Your task to perform on an android device: add a contact in the contacts app Image 0: 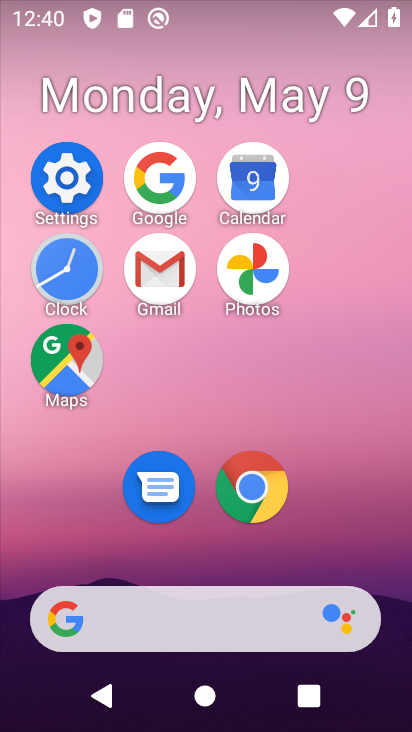
Step 0: drag from (322, 378) to (344, 113)
Your task to perform on an android device: add a contact in the contacts app Image 1: 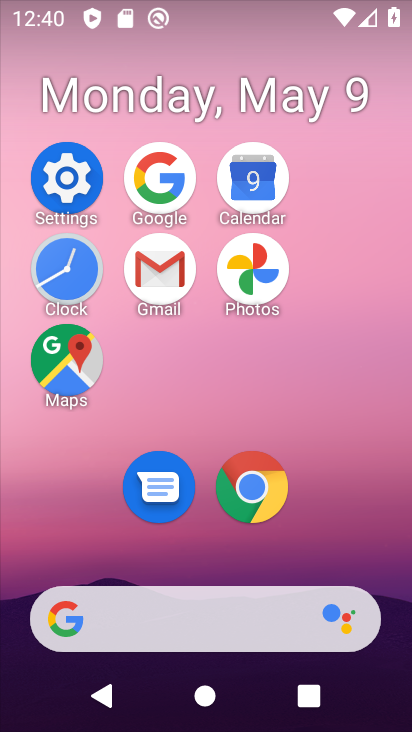
Step 1: drag from (248, 580) to (269, 178)
Your task to perform on an android device: add a contact in the contacts app Image 2: 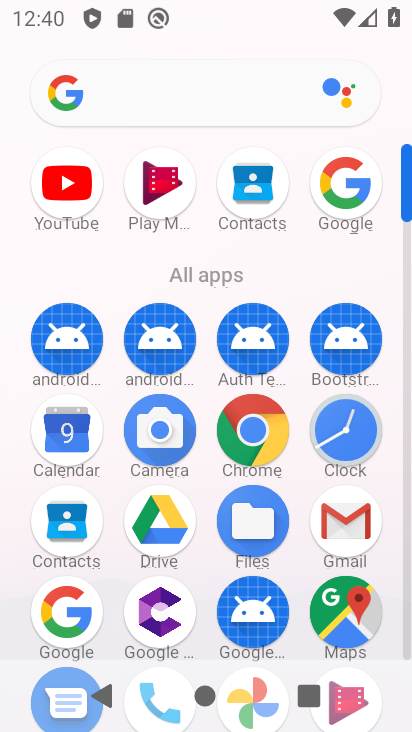
Step 2: drag from (201, 572) to (233, 259)
Your task to perform on an android device: add a contact in the contacts app Image 3: 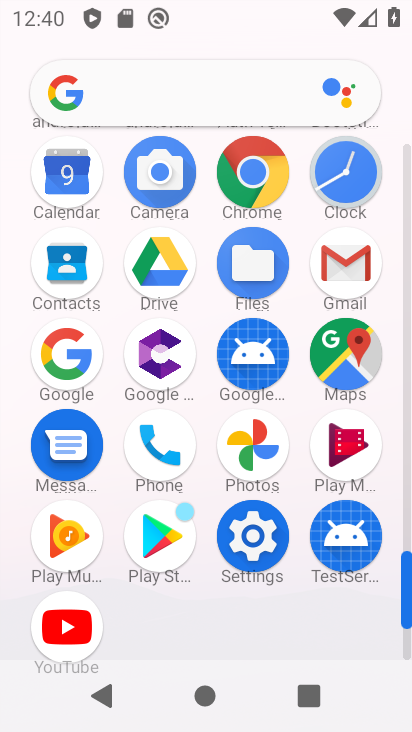
Step 3: click (50, 263)
Your task to perform on an android device: add a contact in the contacts app Image 4: 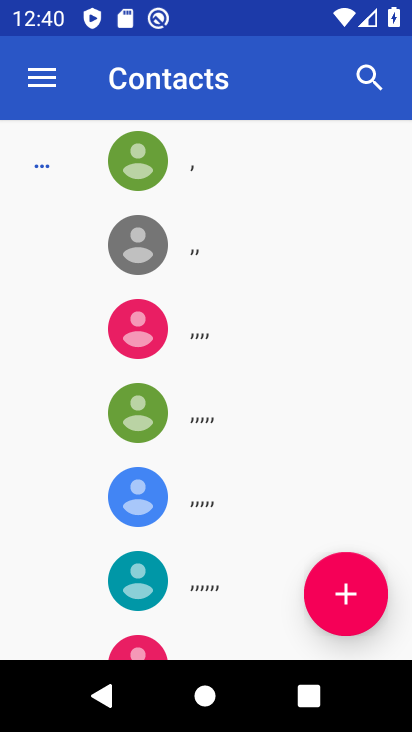
Step 4: click (366, 606)
Your task to perform on an android device: add a contact in the contacts app Image 5: 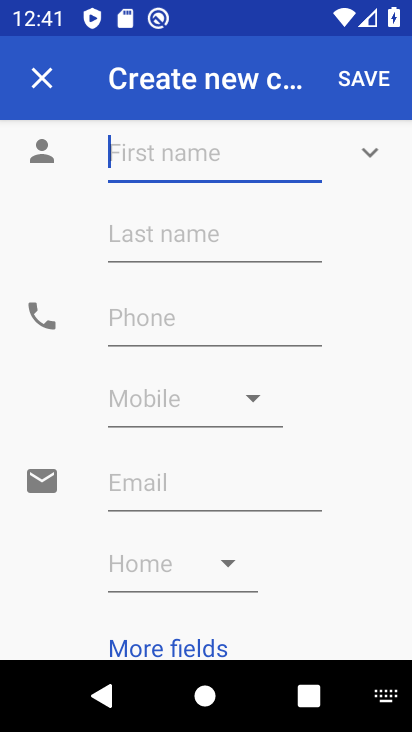
Step 5: type "poiuy"
Your task to perform on an android device: add a contact in the contacts app Image 6: 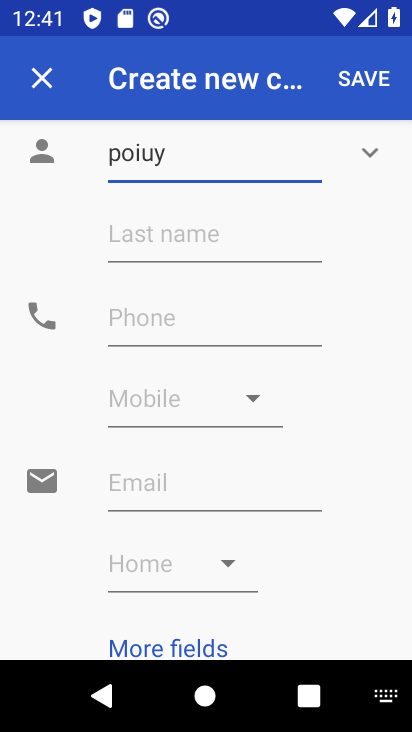
Step 6: click (174, 320)
Your task to perform on an android device: add a contact in the contacts app Image 7: 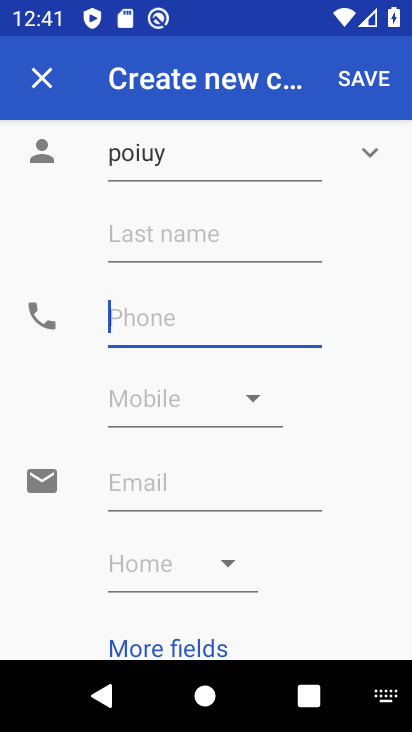
Step 7: type "5543556789"
Your task to perform on an android device: add a contact in the contacts app Image 8: 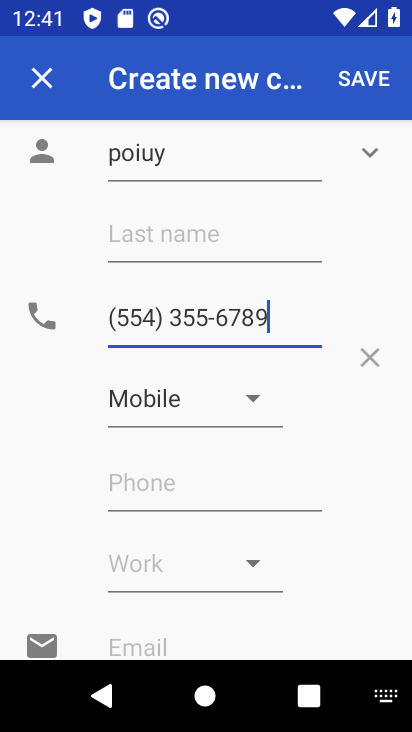
Step 8: click (371, 90)
Your task to perform on an android device: add a contact in the contacts app Image 9: 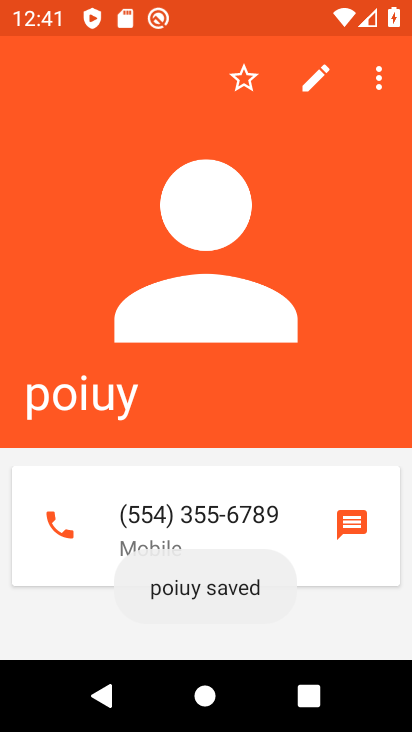
Step 9: task complete